Your task to perform on an android device: change the upload size in google photos Image 0: 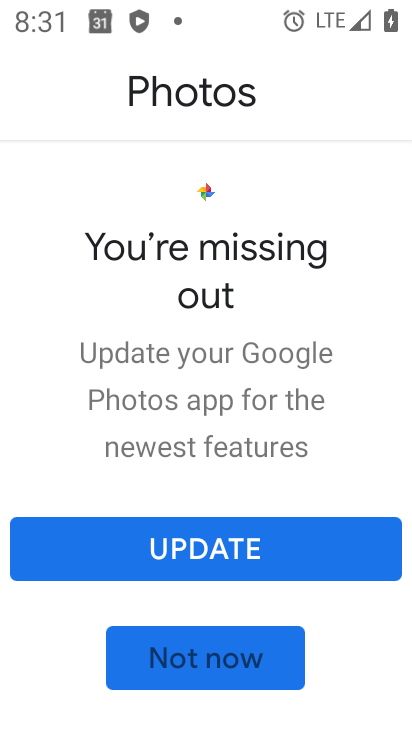
Step 0: click (231, 668)
Your task to perform on an android device: change the upload size in google photos Image 1: 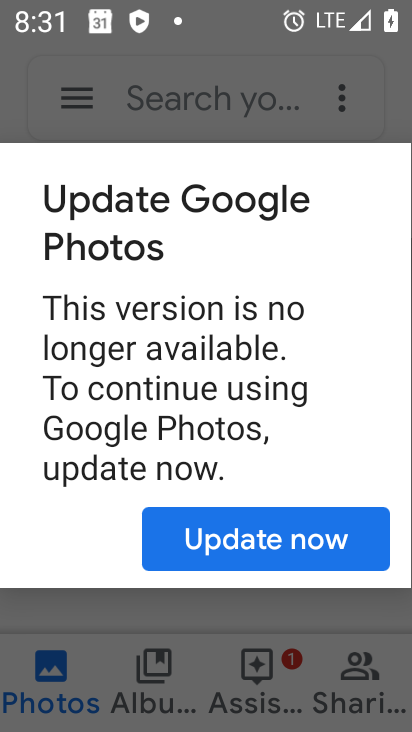
Step 1: click (314, 538)
Your task to perform on an android device: change the upload size in google photos Image 2: 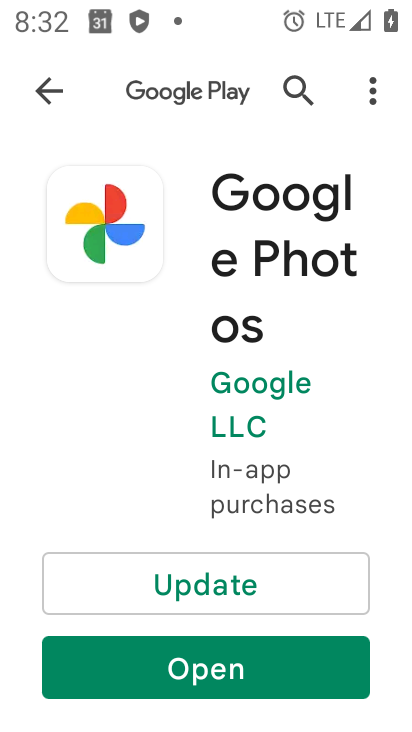
Step 2: click (216, 599)
Your task to perform on an android device: change the upload size in google photos Image 3: 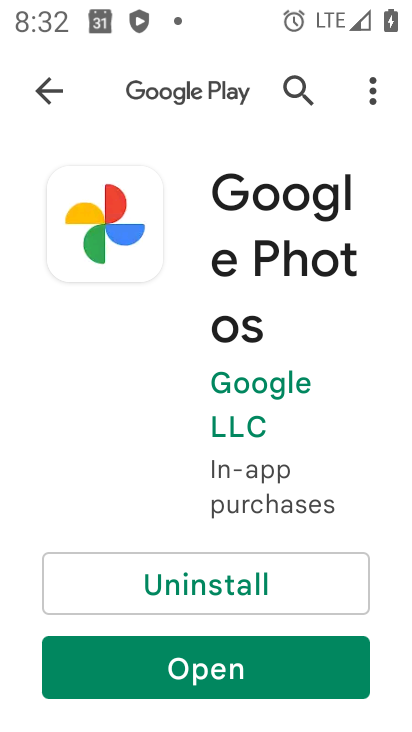
Step 3: click (202, 697)
Your task to perform on an android device: change the upload size in google photos Image 4: 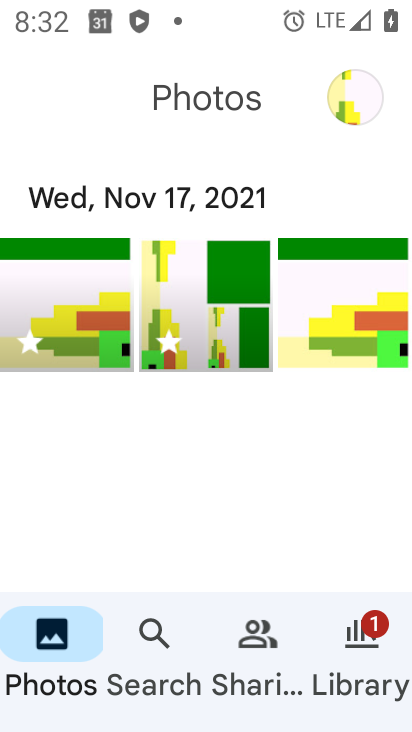
Step 4: click (377, 92)
Your task to perform on an android device: change the upload size in google photos Image 5: 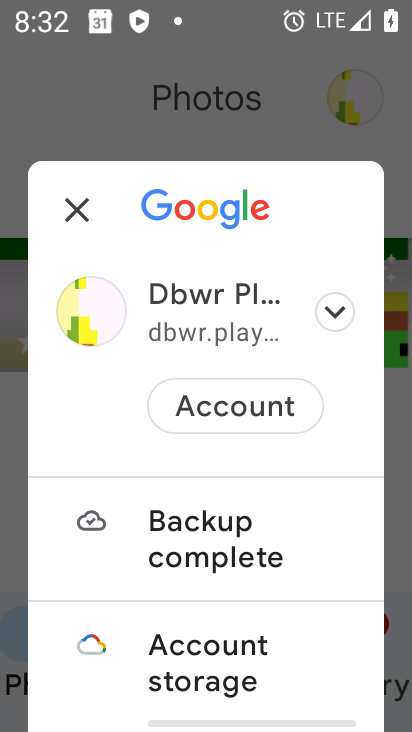
Step 5: drag from (193, 650) to (136, 126)
Your task to perform on an android device: change the upload size in google photos Image 6: 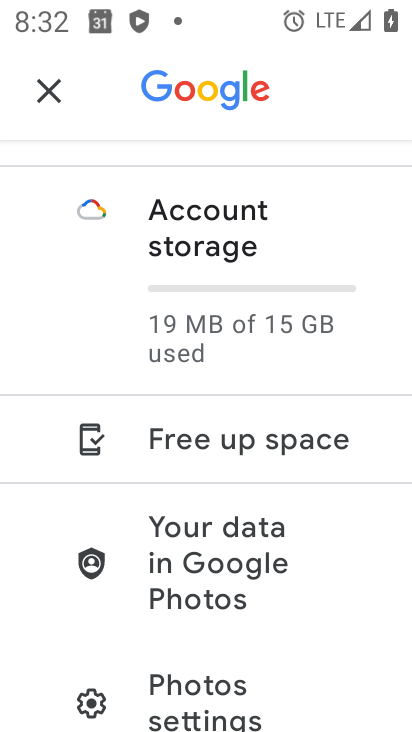
Step 6: drag from (183, 633) to (151, 21)
Your task to perform on an android device: change the upload size in google photos Image 7: 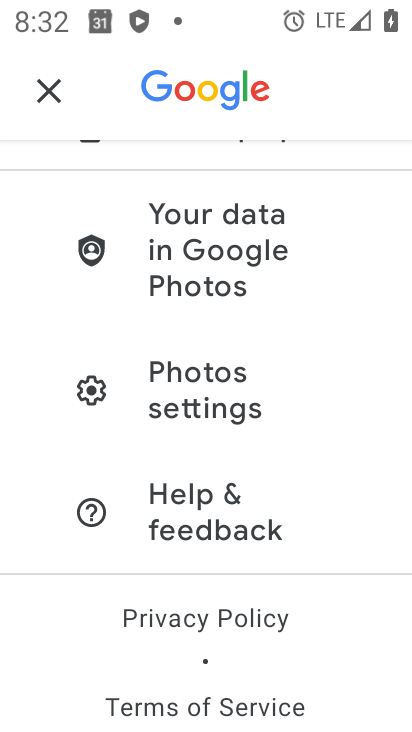
Step 7: click (219, 392)
Your task to perform on an android device: change the upload size in google photos Image 8: 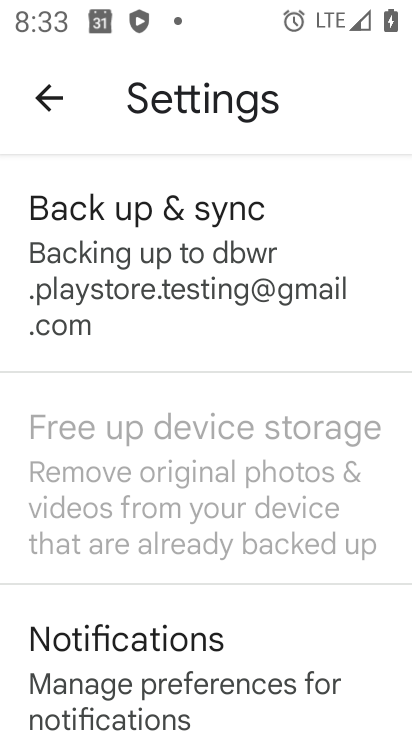
Step 8: click (198, 242)
Your task to perform on an android device: change the upload size in google photos Image 9: 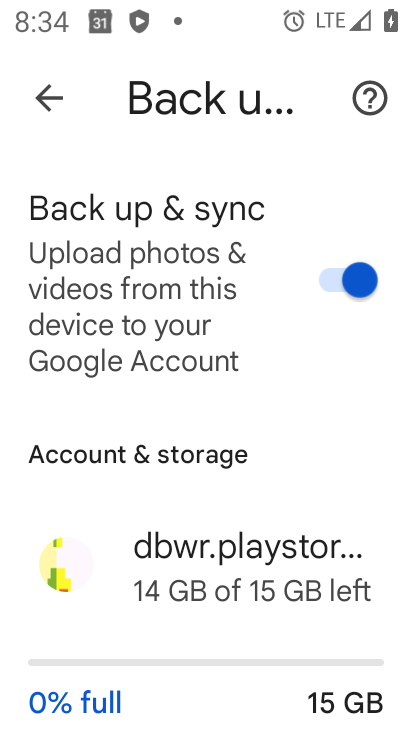
Step 9: drag from (176, 567) to (169, 122)
Your task to perform on an android device: change the upload size in google photos Image 10: 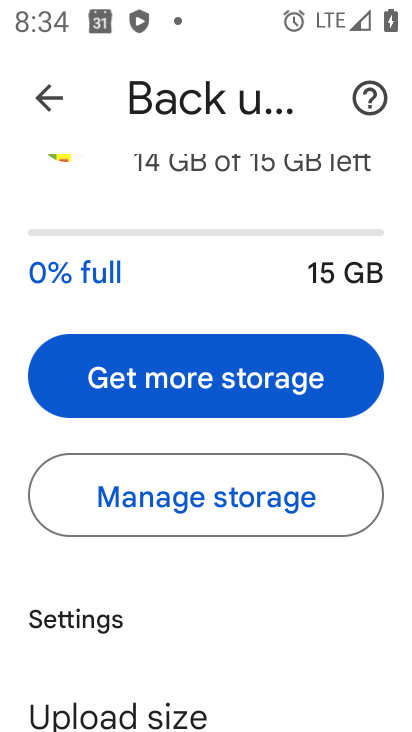
Step 10: click (146, 708)
Your task to perform on an android device: change the upload size in google photos Image 11: 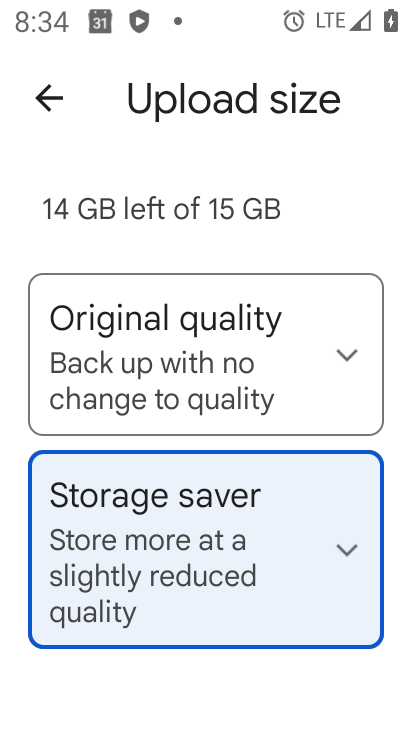
Step 11: click (318, 366)
Your task to perform on an android device: change the upload size in google photos Image 12: 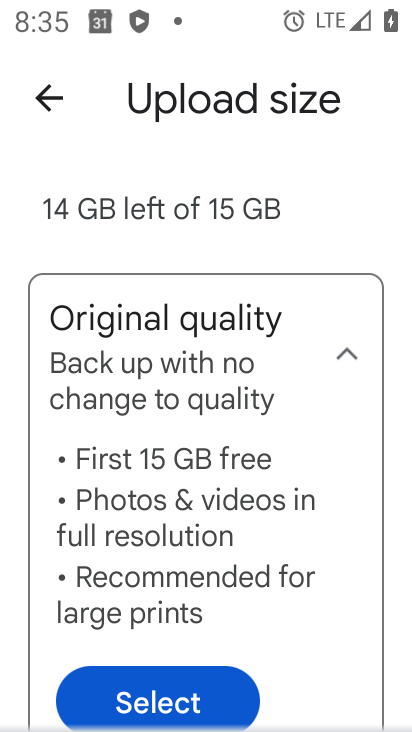
Step 12: click (196, 716)
Your task to perform on an android device: change the upload size in google photos Image 13: 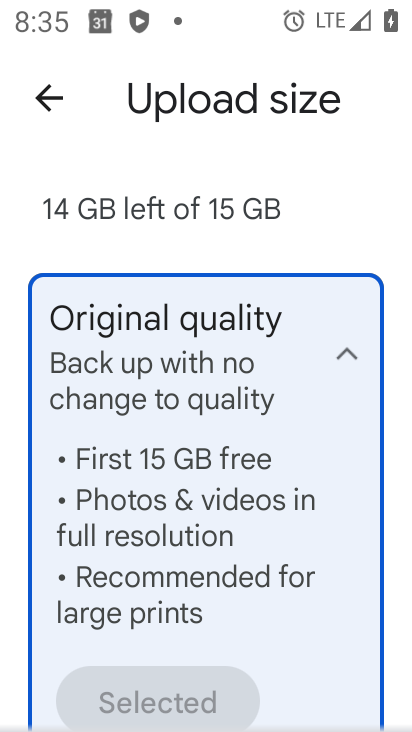
Step 13: task complete